Your task to perform on an android device: turn on sleep mode Image 0: 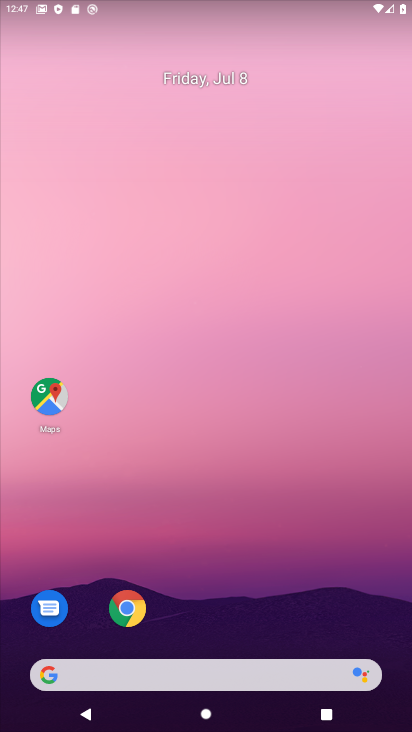
Step 0: drag from (374, 602) to (338, 21)
Your task to perform on an android device: turn on sleep mode Image 1: 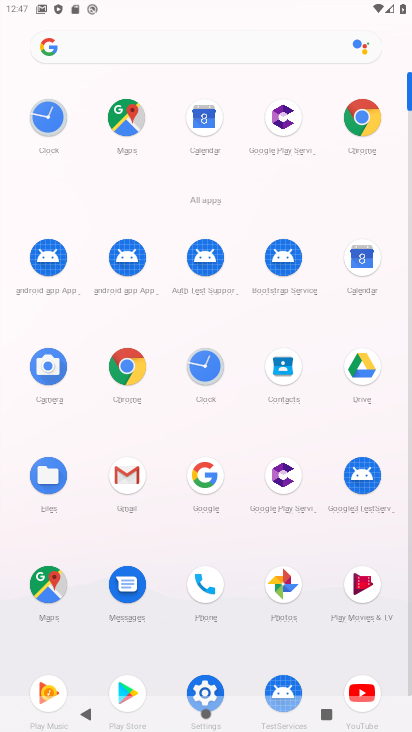
Step 1: click (203, 688)
Your task to perform on an android device: turn on sleep mode Image 2: 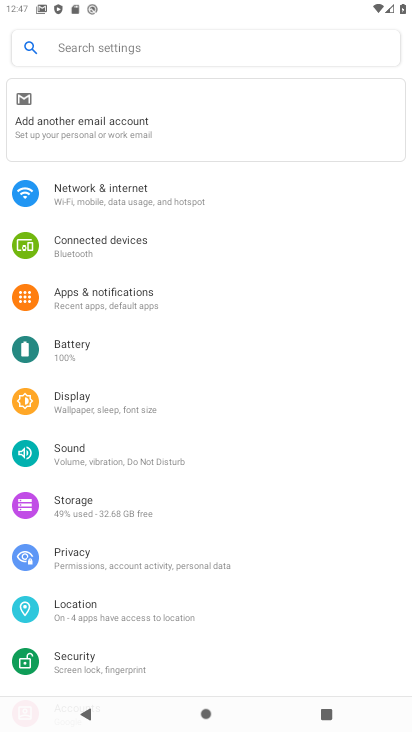
Step 2: click (63, 399)
Your task to perform on an android device: turn on sleep mode Image 3: 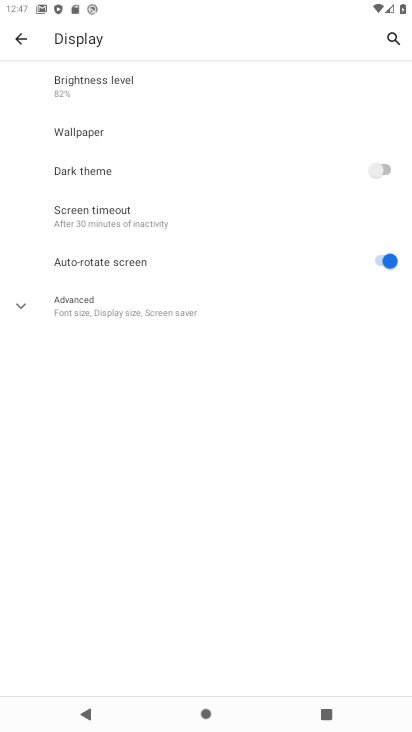
Step 3: click (21, 303)
Your task to perform on an android device: turn on sleep mode Image 4: 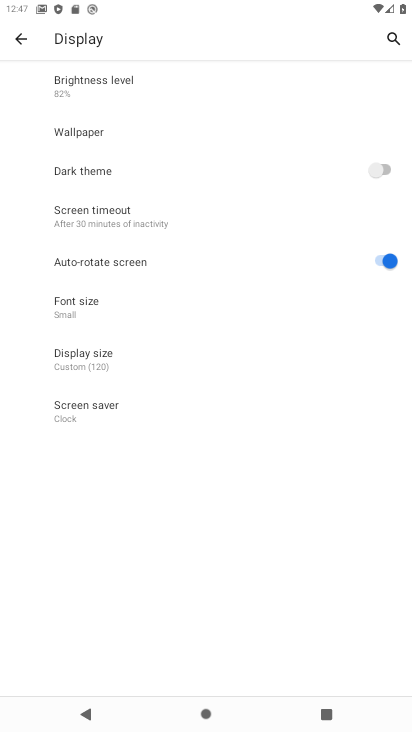
Step 4: task complete